Your task to perform on an android device: Find coffee shops on Maps Image 0: 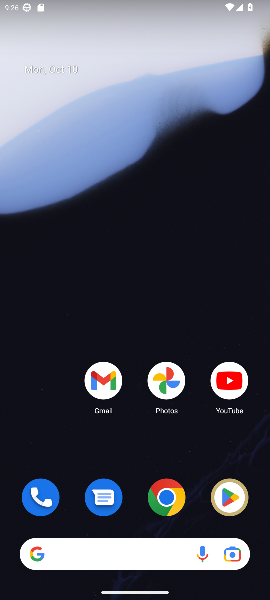
Step 0: drag from (95, 490) to (108, 146)
Your task to perform on an android device: Find coffee shops on Maps Image 1: 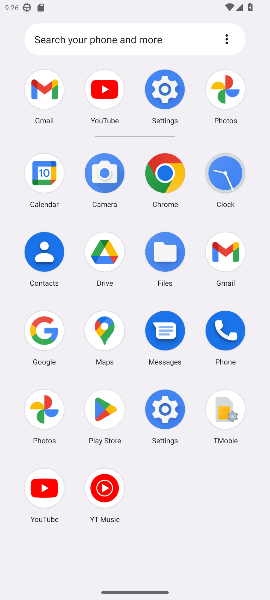
Step 1: click (43, 337)
Your task to perform on an android device: Find coffee shops on Maps Image 2: 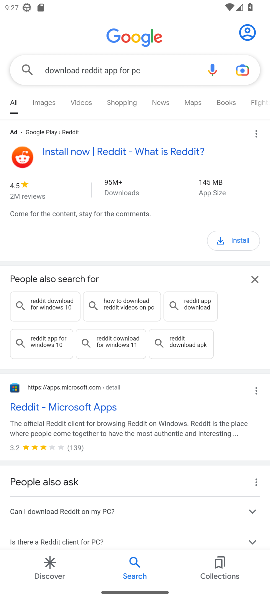
Step 2: click (109, 72)
Your task to perform on an android device: Find coffee shops on Maps Image 3: 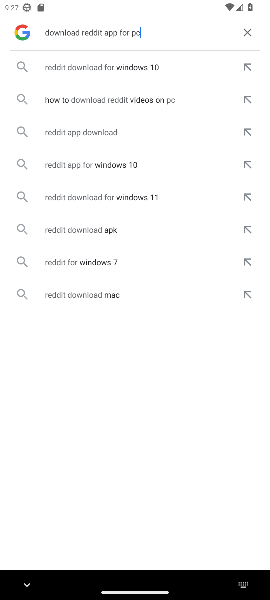
Step 3: click (248, 28)
Your task to perform on an android device: Find coffee shops on Maps Image 4: 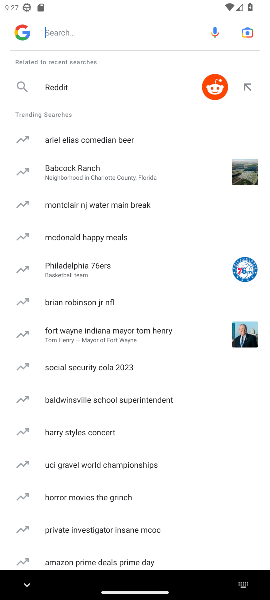
Step 4: click (106, 28)
Your task to perform on an android device: Find coffee shops on Maps Image 5: 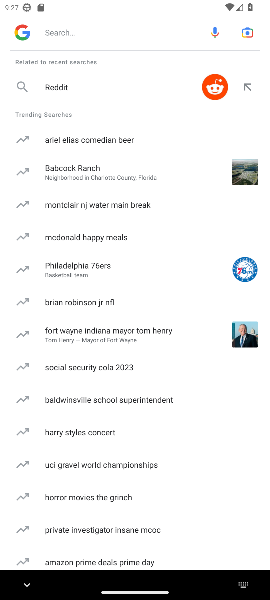
Step 5: type "Find coffee shops on Maps "
Your task to perform on an android device: Find coffee shops on Maps Image 6: 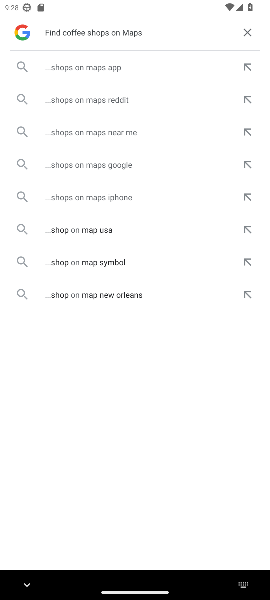
Step 6: click (83, 61)
Your task to perform on an android device: Find coffee shops on Maps Image 7: 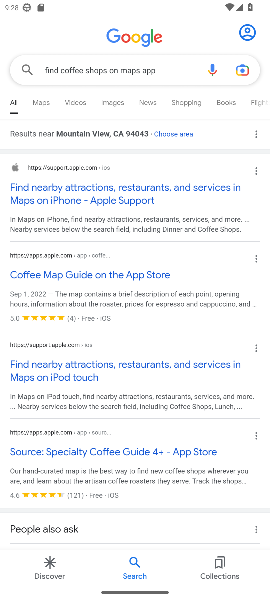
Step 7: click (79, 196)
Your task to perform on an android device: Find coffee shops on Maps Image 8: 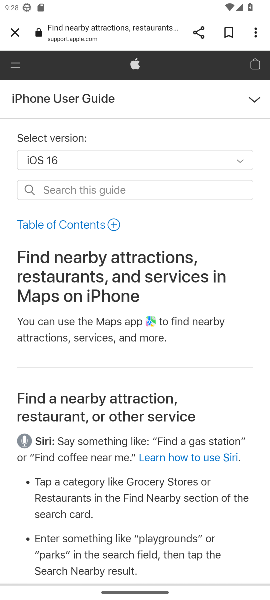
Step 8: drag from (144, 487) to (146, 229)
Your task to perform on an android device: Find coffee shops on Maps Image 9: 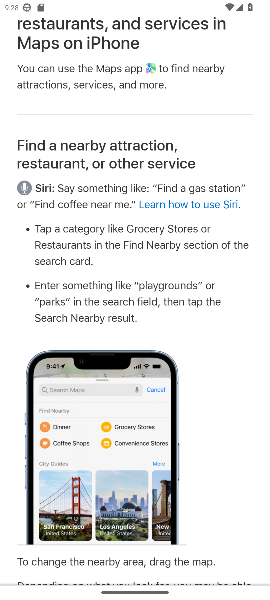
Step 9: drag from (161, 499) to (140, 162)
Your task to perform on an android device: Find coffee shops on Maps Image 10: 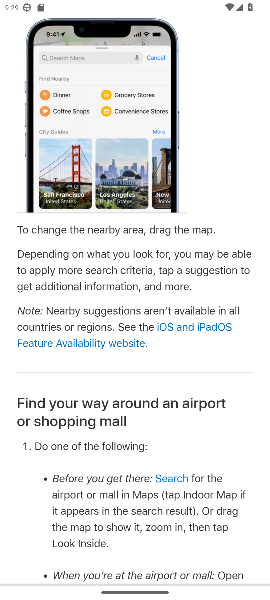
Step 10: press back button
Your task to perform on an android device: Find coffee shops on Maps Image 11: 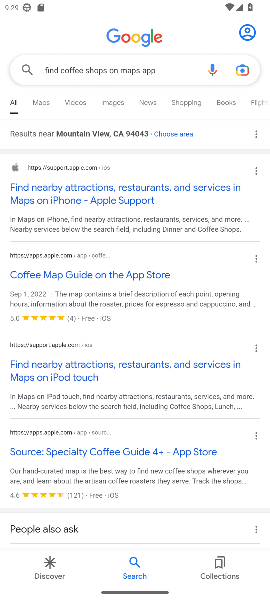
Step 11: click (48, 362)
Your task to perform on an android device: Find coffee shops on Maps Image 12: 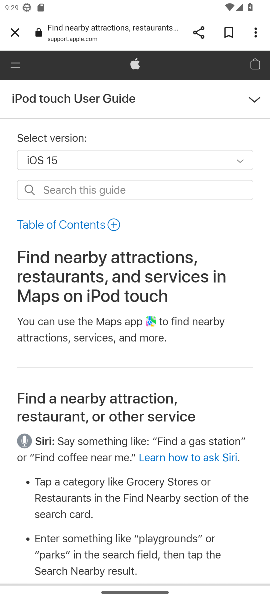
Step 12: click (10, 28)
Your task to perform on an android device: Find coffee shops on Maps Image 13: 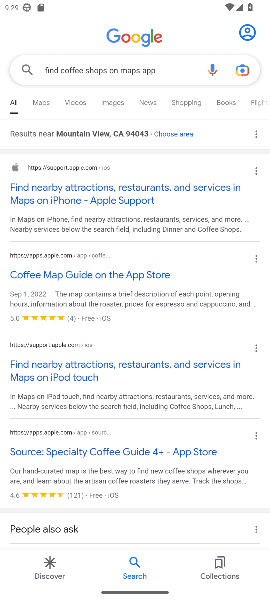
Step 13: press home button
Your task to perform on an android device: Find coffee shops on Maps Image 14: 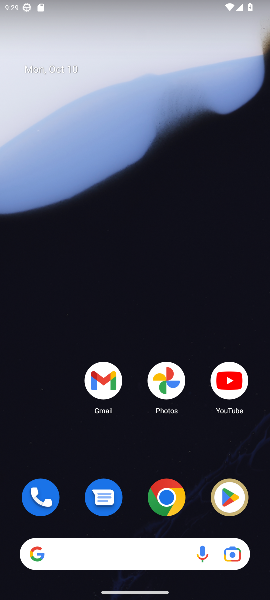
Step 14: drag from (142, 420) to (142, 111)
Your task to perform on an android device: Find coffee shops on Maps Image 15: 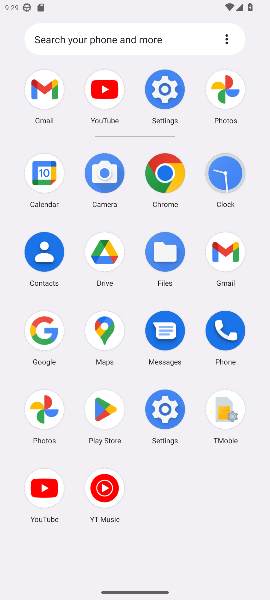
Step 15: click (98, 324)
Your task to perform on an android device: Find coffee shops on Maps Image 16: 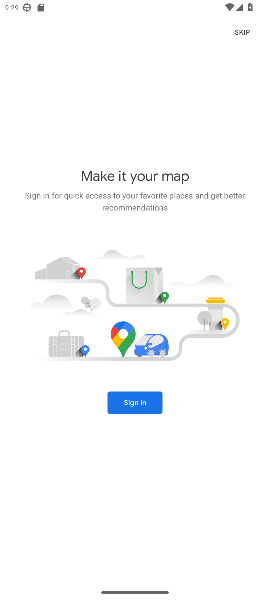
Step 16: click (129, 392)
Your task to perform on an android device: Find coffee shops on Maps Image 17: 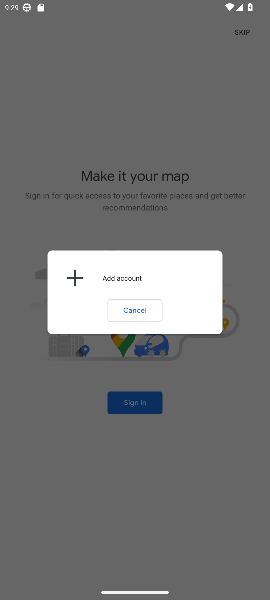
Step 17: task complete